Your task to perform on an android device: turn on the 24-hour format for clock Image 0: 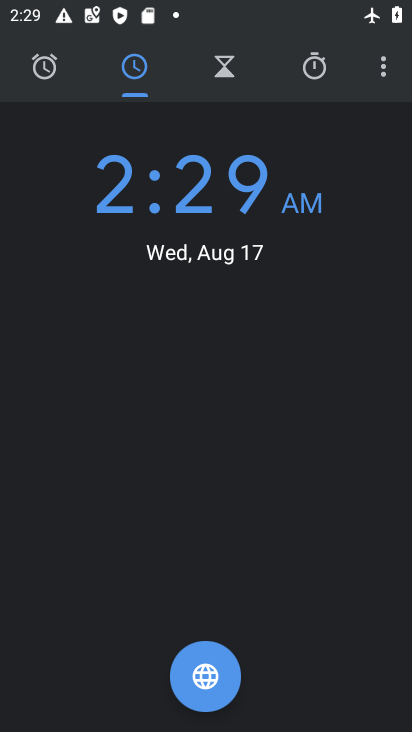
Step 0: click (383, 76)
Your task to perform on an android device: turn on the 24-hour format for clock Image 1: 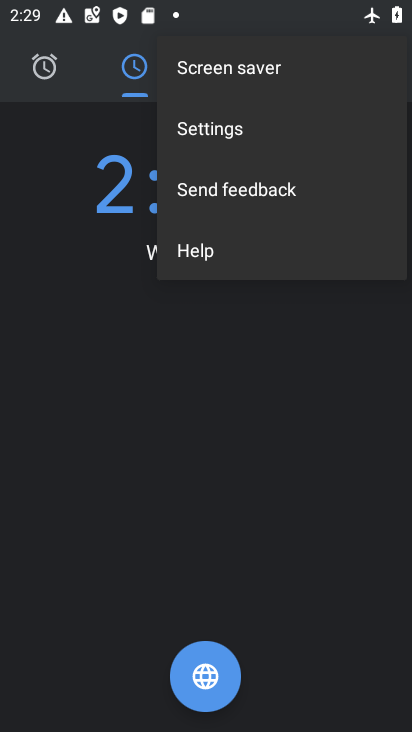
Step 1: click (269, 127)
Your task to perform on an android device: turn on the 24-hour format for clock Image 2: 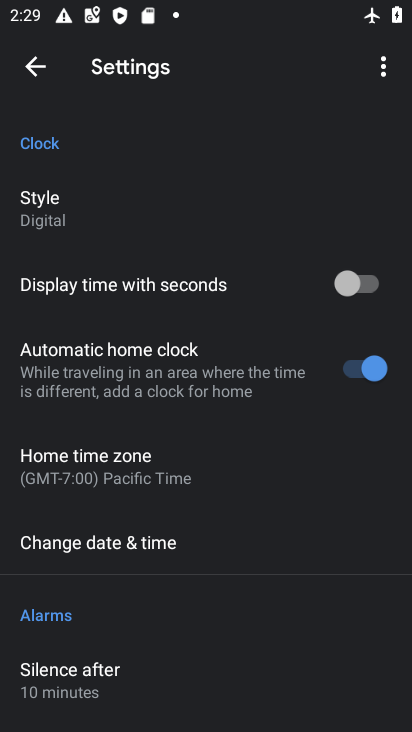
Step 2: click (255, 557)
Your task to perform on an android device: turn on the 24-hour format for clock Image 3: 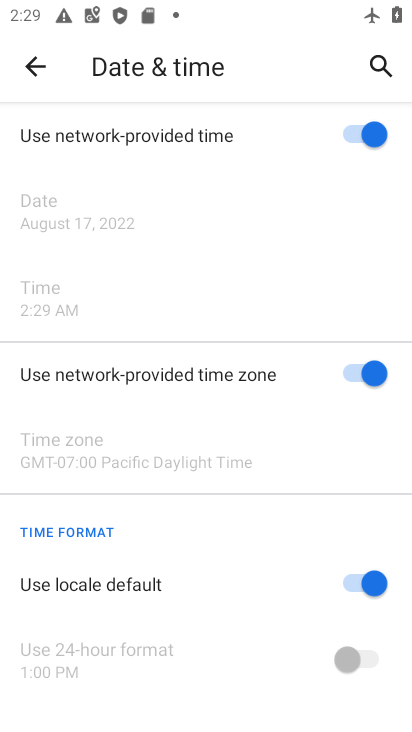
Step 3: click (362, 582)
Your task to perform on an android device: turn on the 24-hour format for clock Image 4: 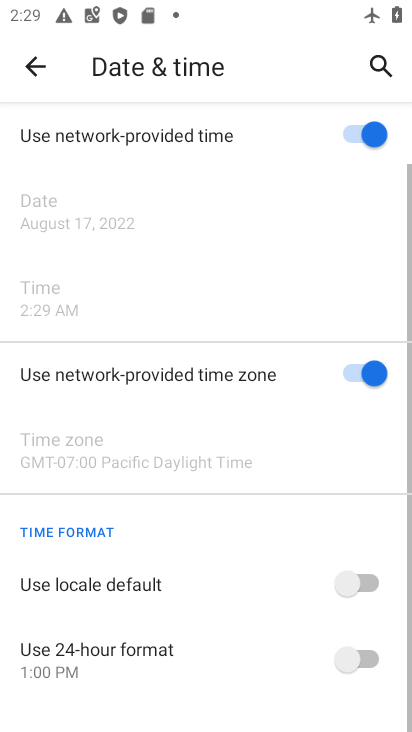
Step 4: click (364, 659)
Your task to perform on an android device: turn on the 24-hour format for clock Image 5: 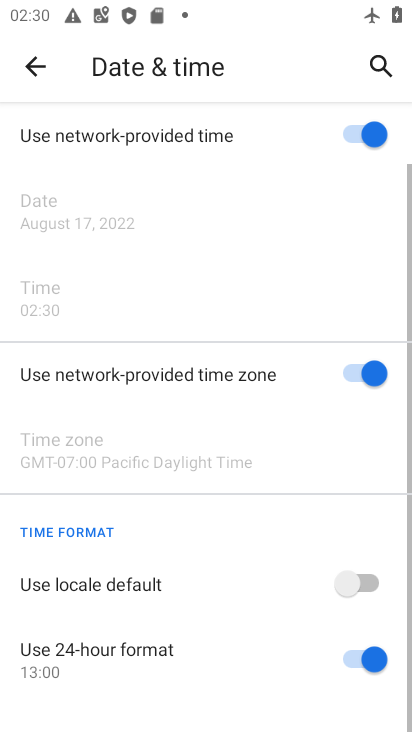
Step 5: task complete